Your task to perform on an android device: Open Google Chrome and open the bookmarks view Image 0: 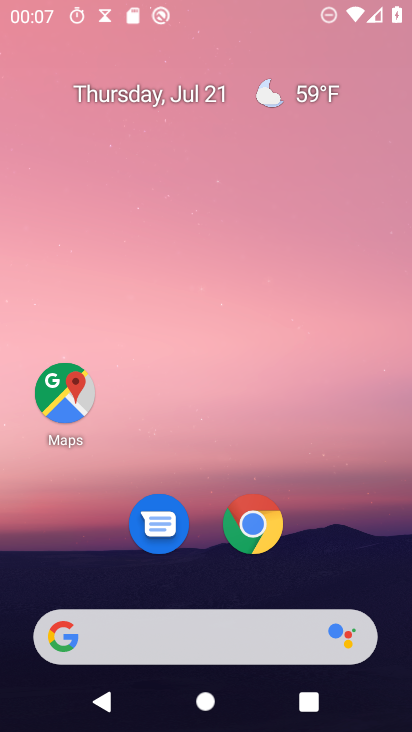
Step 0: press home button
Your task to perform on an android device: Open Google Chrome and open the bookmarks view Image 1: 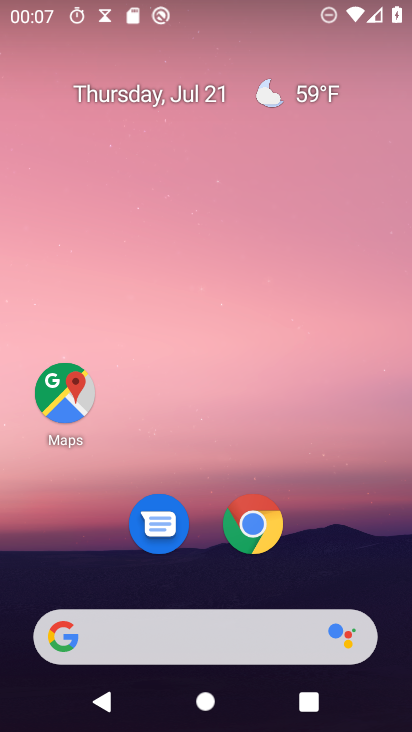
Step 1: click (250, 532)
Your task to perform on an android device: Open Google Chrome and open the bookmarks view Image 2: 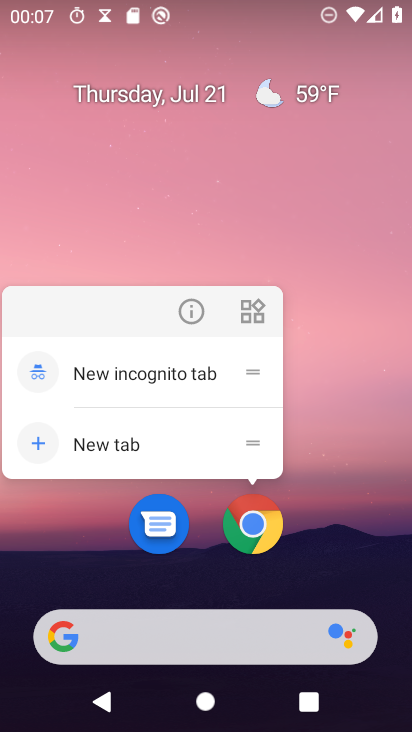
Step 2: click (265, 508)
Your task to perform on an android device: Open Google Chrome and open the bookmarks view Image 3: 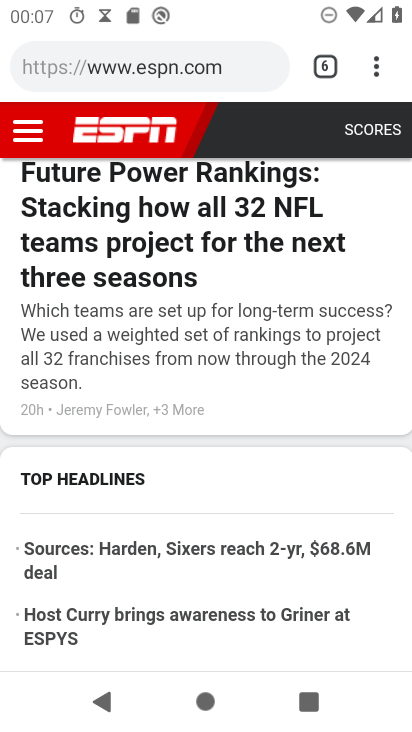
Step 3: task complete